Your task to perform on an android device: turn on data saver in the chrome app Image 0: 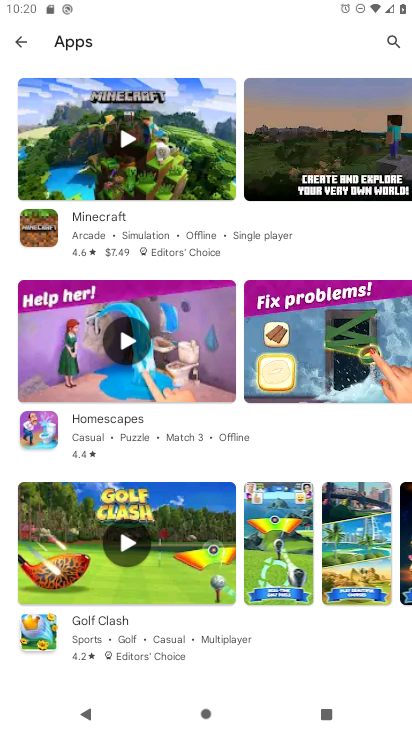
Step 0: press home button
Your task to perform on an android device: turn on data saver in the chrome app Image 1: 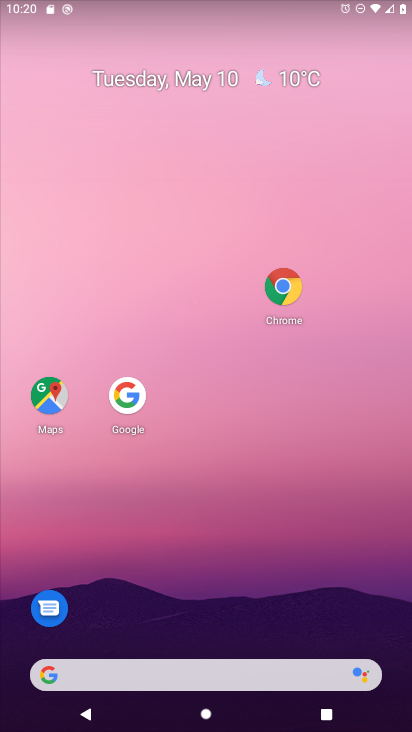
Step 1: click (284, 287)
Your task to perform on an android device: turn on data saver in the chrome app Image 2: 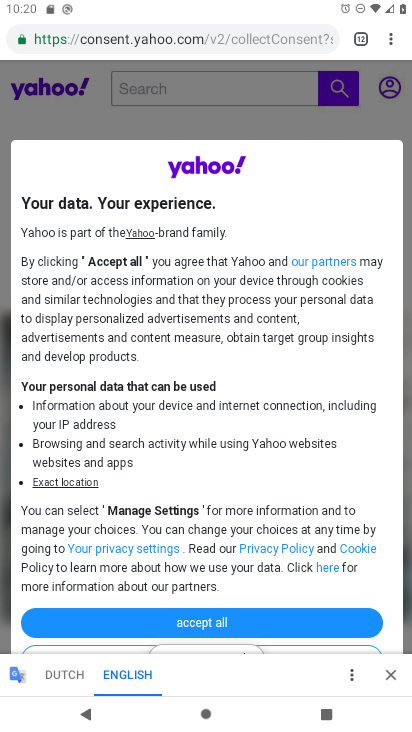
Step 2: drag from (391, 40) to (294, 468)
Your task to perform on an android device: turn on data saver in the chrome app Image 3: 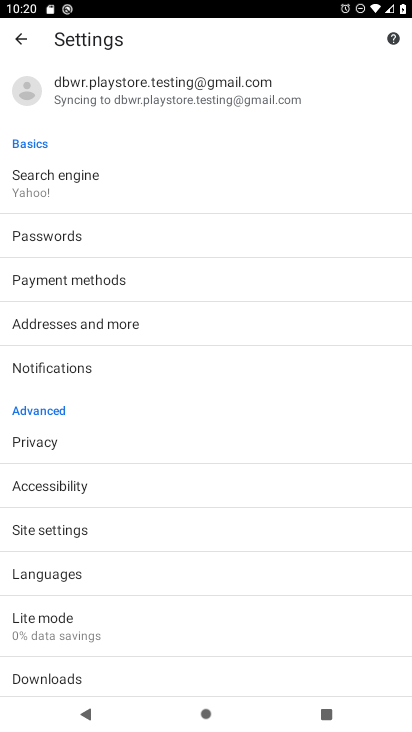
Step 3: click (96, 630)
Your task to perform on an android device: turn on data saver in the chrome app Image 4: 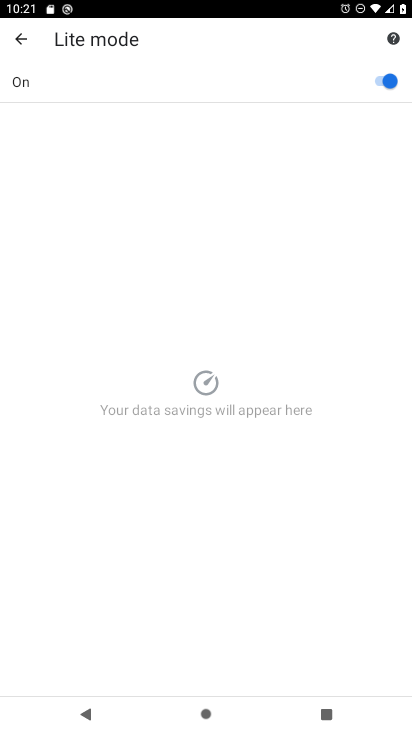
Step 4: task complete